Your task to perform on an android device: Open Google Chrome and click the shortcut for Amazon.com Image 0: 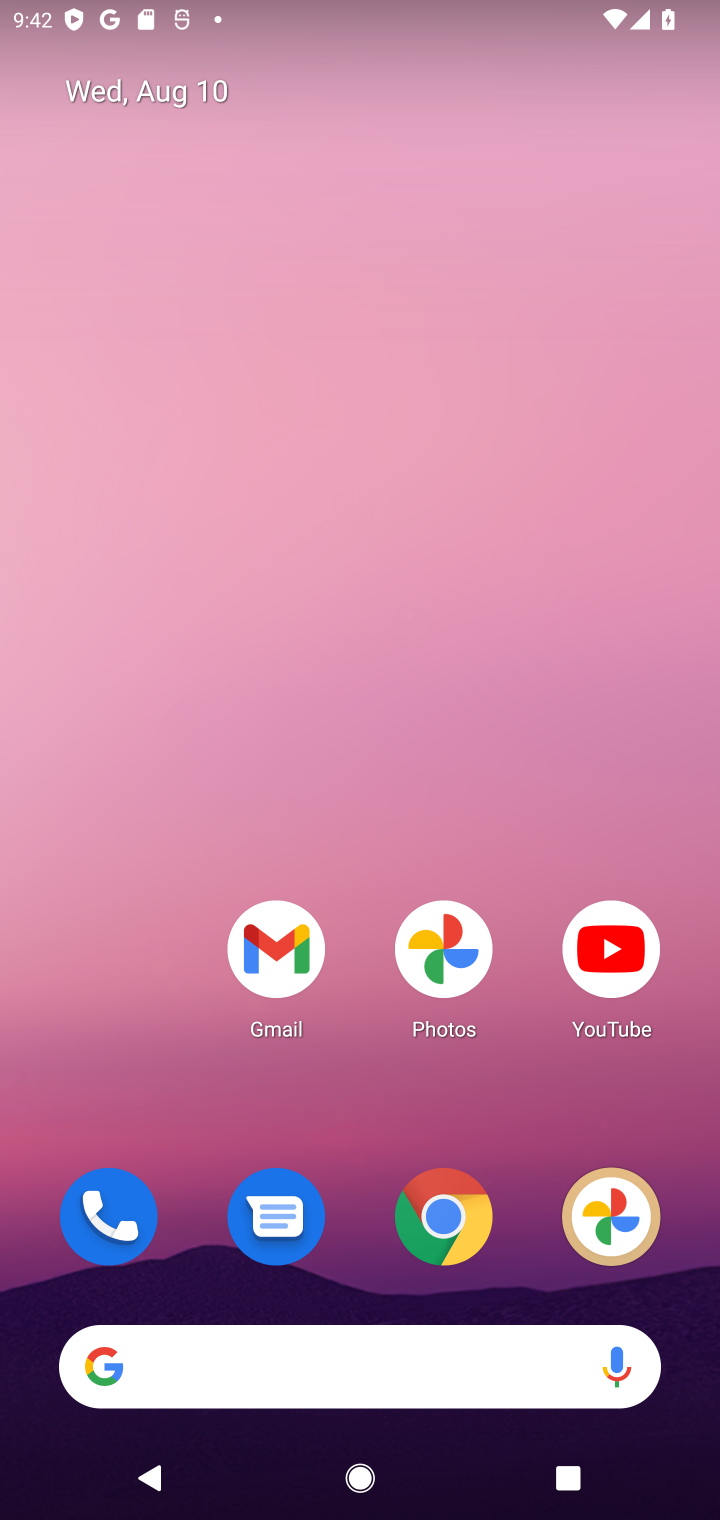
Step 0: click (444, 1216)
Your task to perform on an android device: Open Google Chrome and click the shortcut for Amazon.com Image 1: 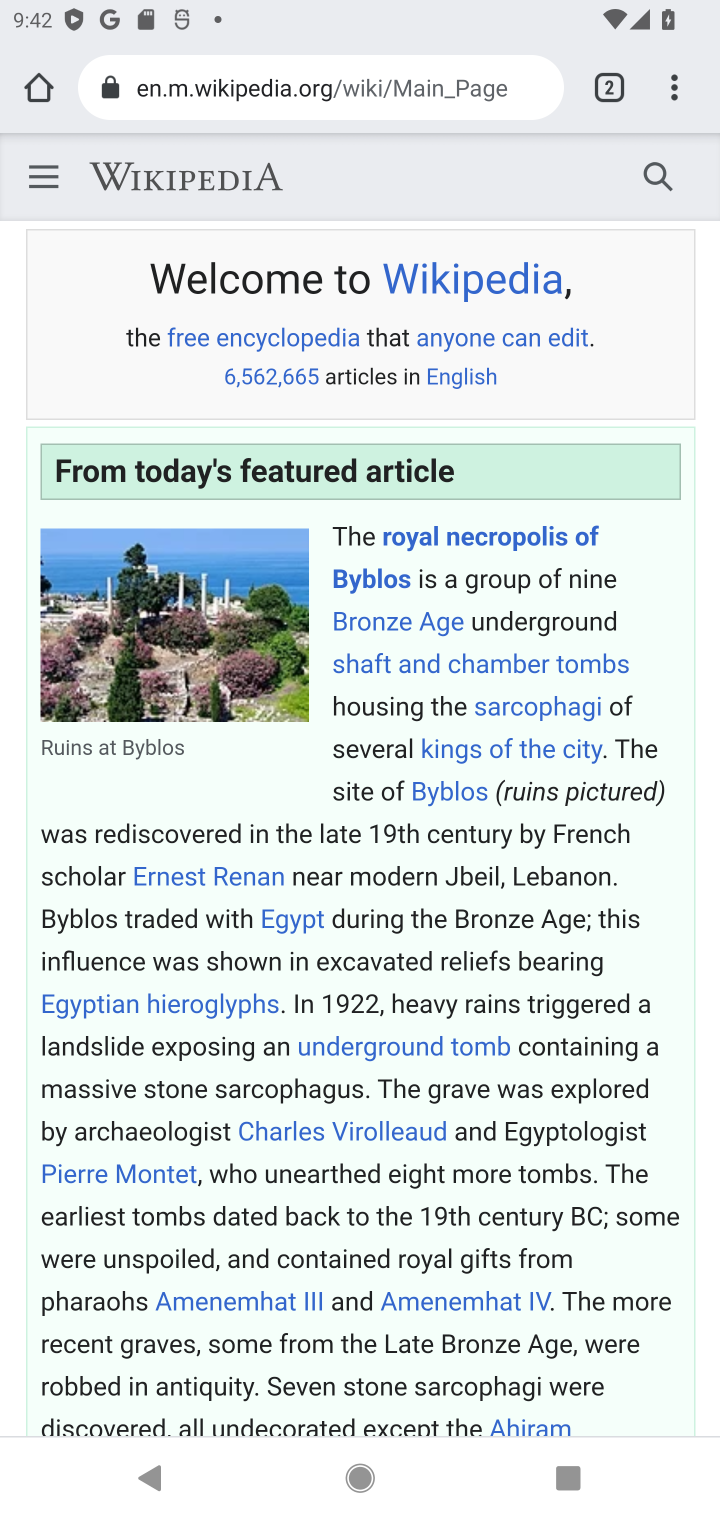
Step 1: click (600, 101)
Your task to perform on an android device: Open Google Chrome and click the shortcut for Amazon.com Image 2: 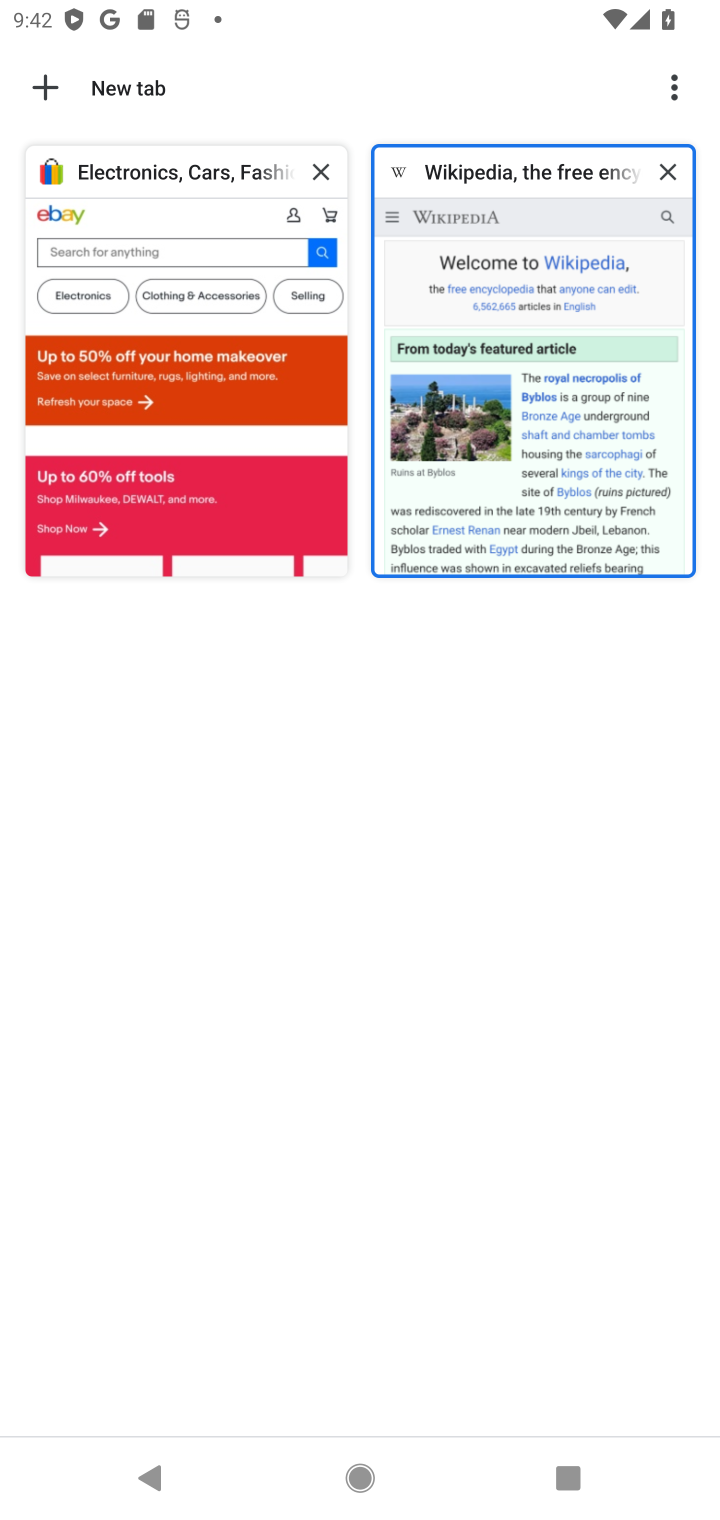
Step 2: click (667, 167)
Your task to perform on an android device: Open Google Chrome and click the shortcut for Amazon.com Image 3: 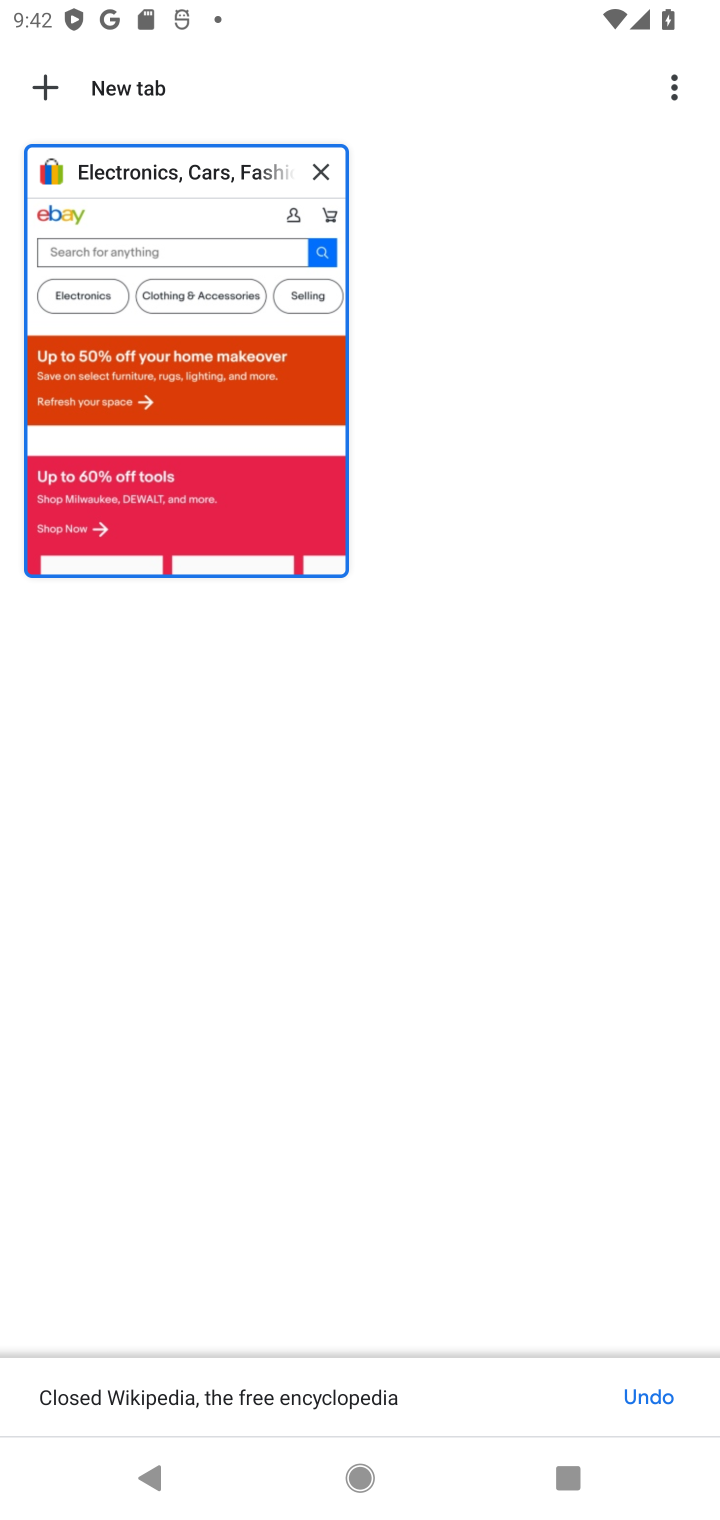
Step 3: click (323, 163)
Your task to perform on an android device: Open Google Chrome and click the shortcut for Amazon.com Image 4: 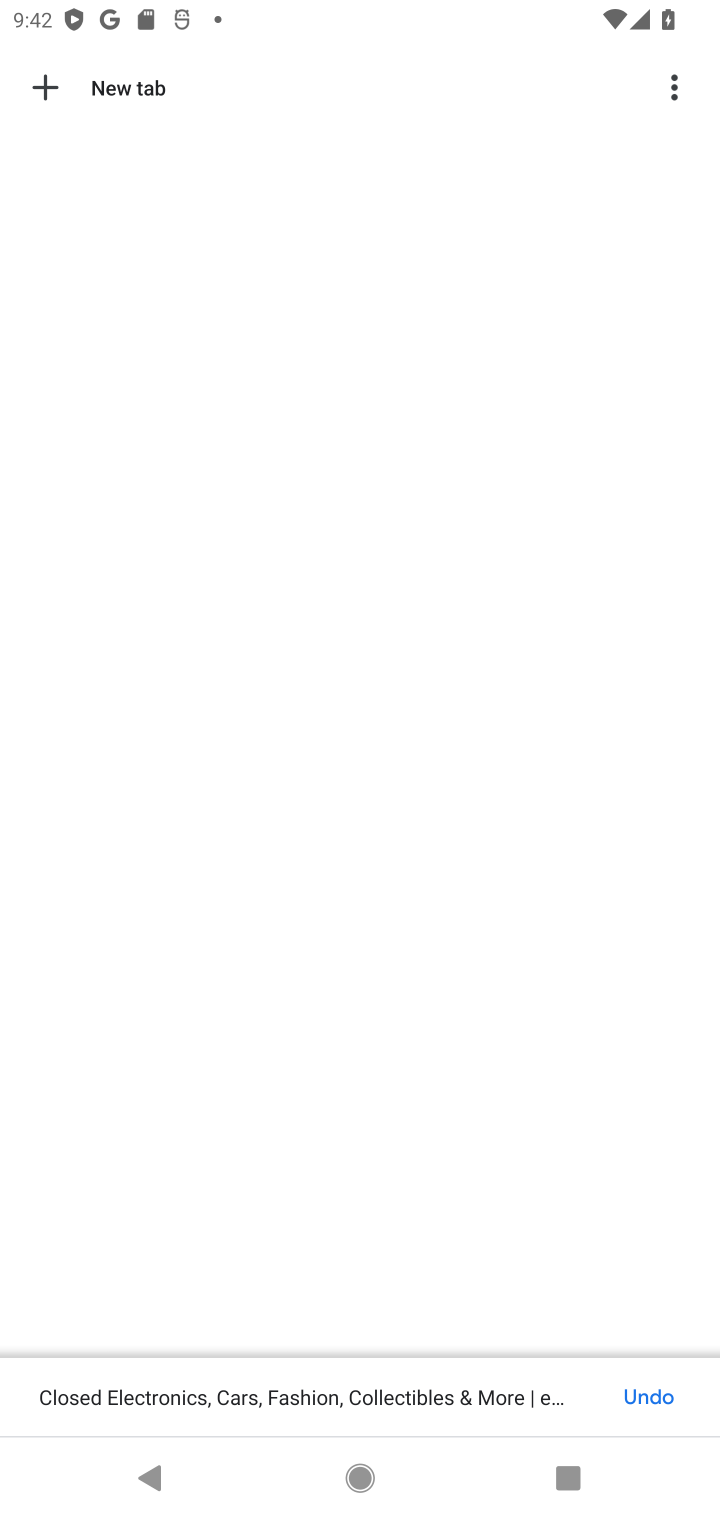
Step 4: click (70, 81)
Your task to perform on an android device: Open Google Chrome and click the shortcut for Amazon.com Image 5: 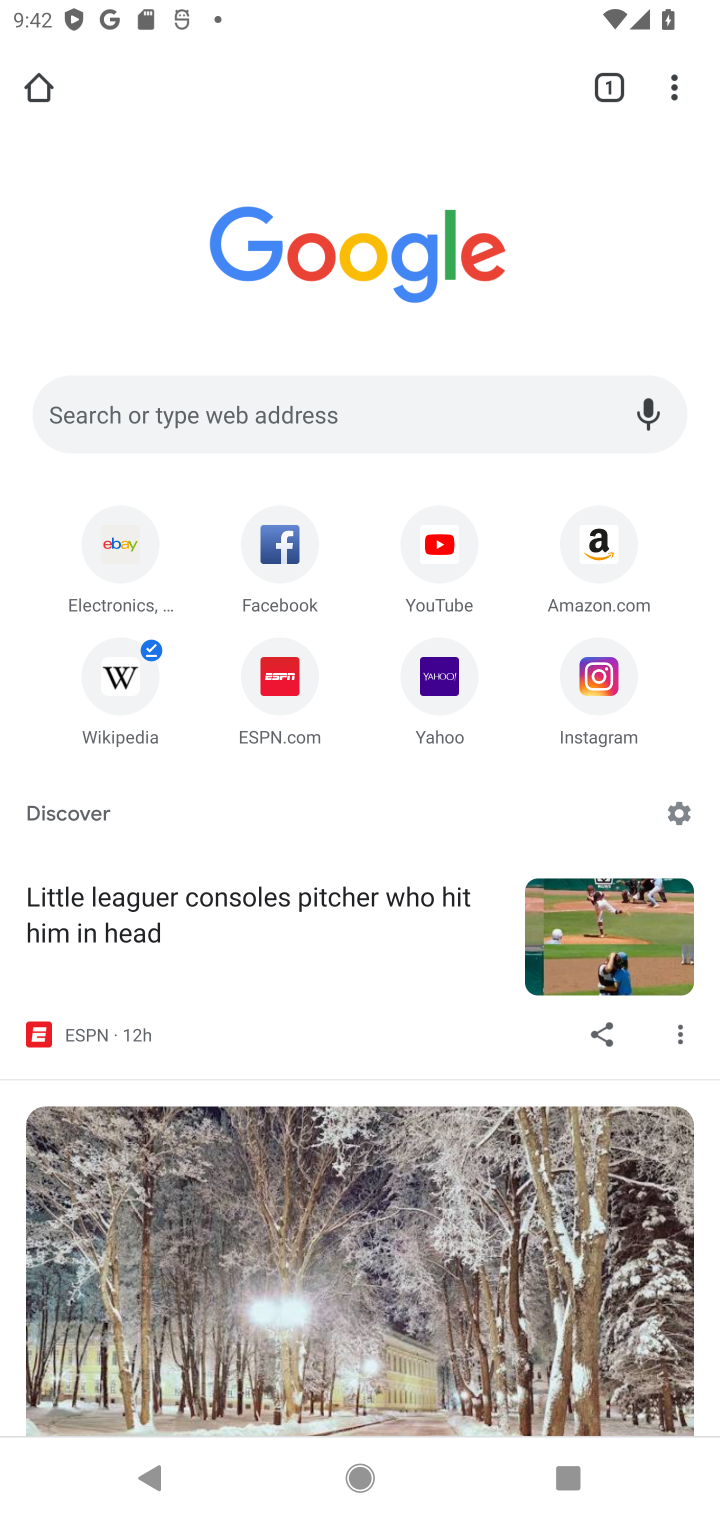
Step 5: click (591, 561)
Your task to perform on an android device: Open Google Chrome and click the shortcut for Amazon.com Image 6: 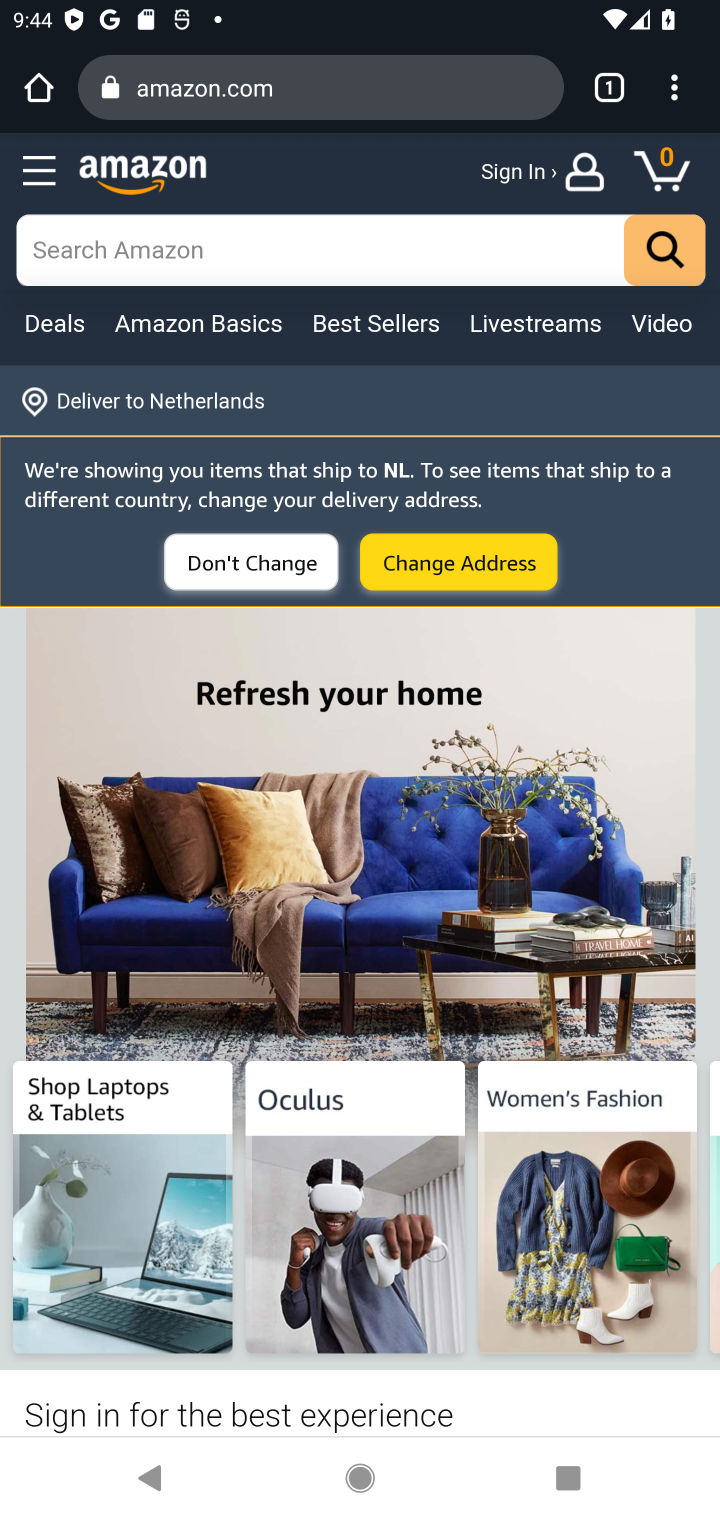
Step 6: task complete